Your task to perform on an android device: Open Chrome and go to the settings page Image 0: 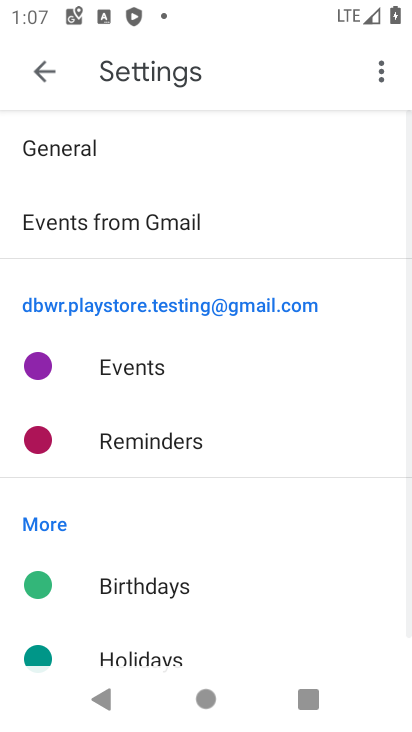
Step 0: press home button
Your task to perform on an android device: Open Chrome and go to the settings page Image 1: 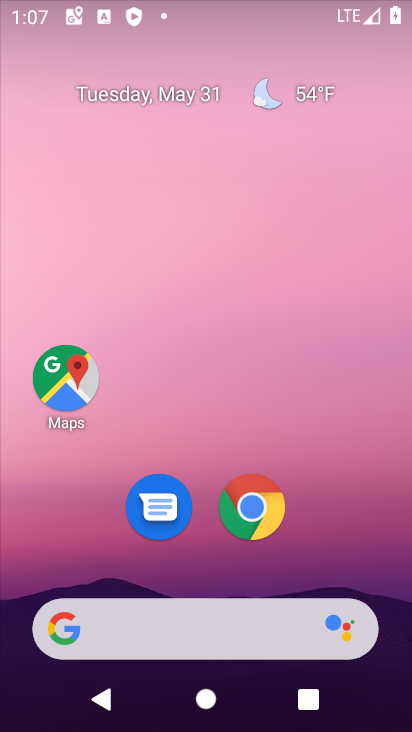
Step 1: drag from (399, 678) to (273, 66)
Your task to perform on an android device: Open Chrome and go to the settings page Image 2: 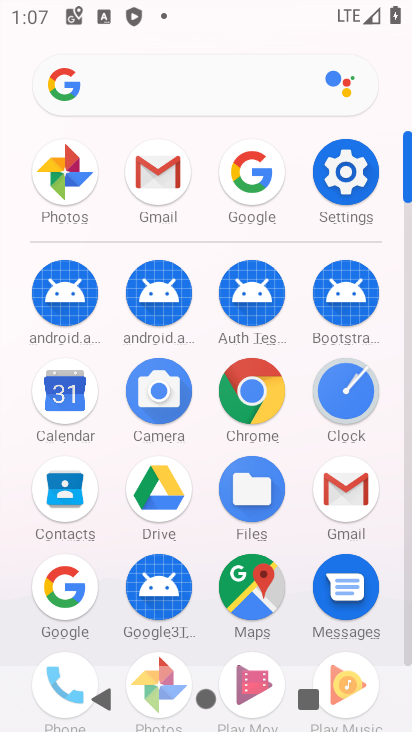
Step 2: click (240, 387)
Your task to perform on an android device: Open Chrome and go to the settings page Image 3: 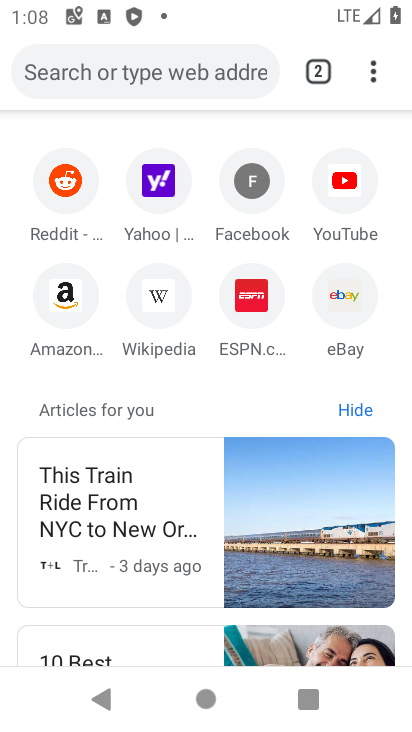
Step 3: click (373, 60)
Your task to perform on an android device: Open Chrome and go to the settings page Image 4: 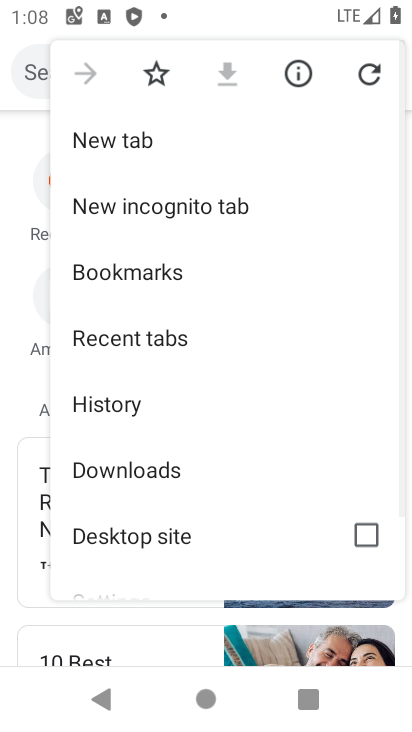
Step 4: drag from (141, 529) to (196, 76)
Your task to perform on an android device: Open Chrome and go to the settings page Image 5: 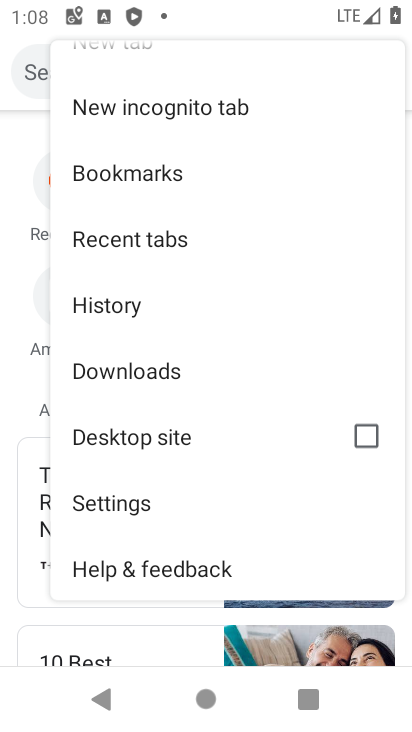
Step 5: click (107, 499)
Your task to perform on an android device: Open Chrome and go to the settings page Image 6: 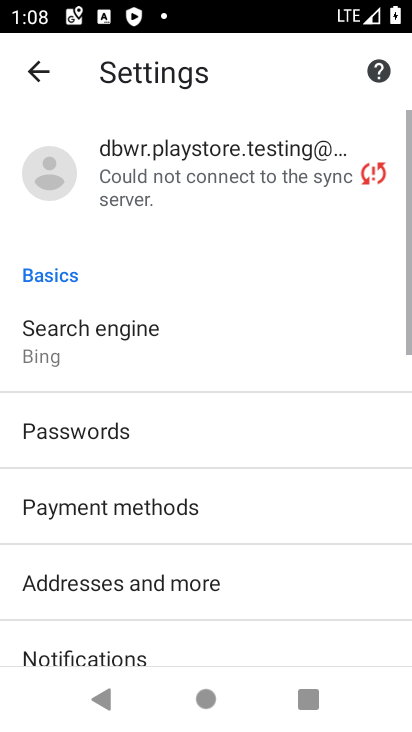
Step 6: task complete